Your task to perform on an android device: set default search engine in the chrome app Image 0: 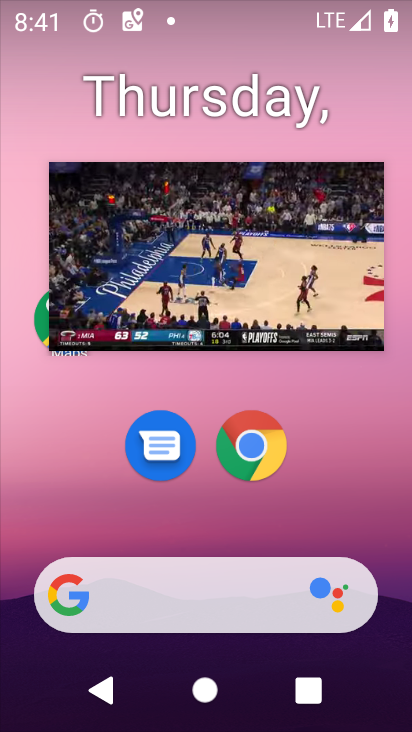
Step 0: click (343, 206)
Your task to perform on an android device: set default search engine in the chrome app Image 1: 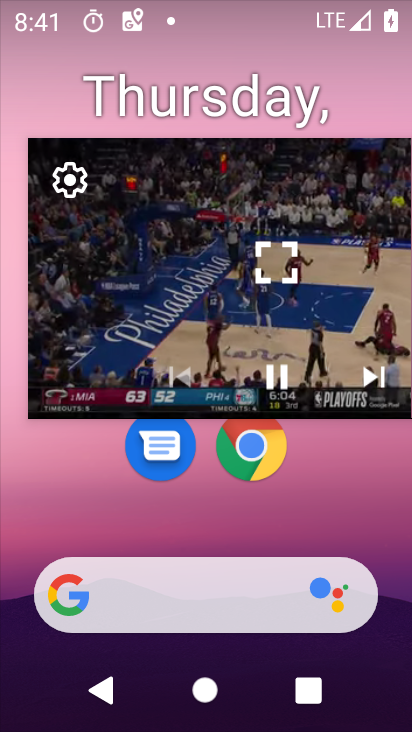
Step 1: drag from (378, 201) to (194, 731)
Your task to perform on an android device: set default search engine in the chrome app Image 2: 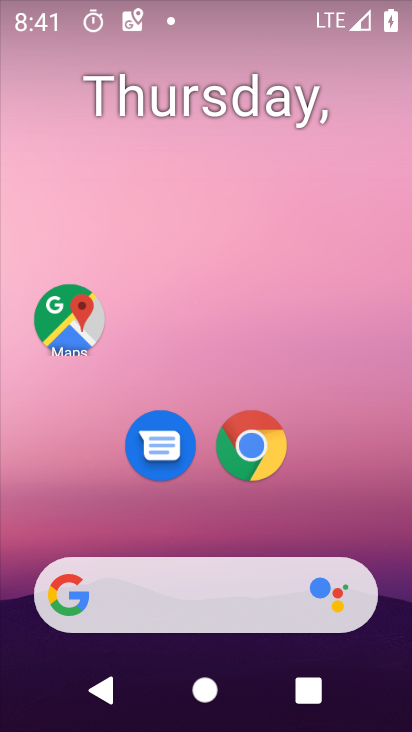
Step 2: drag from (214, 541) to (244, 223)
Your task to perform on an android device: set default search engine in the chrome app Image 3: 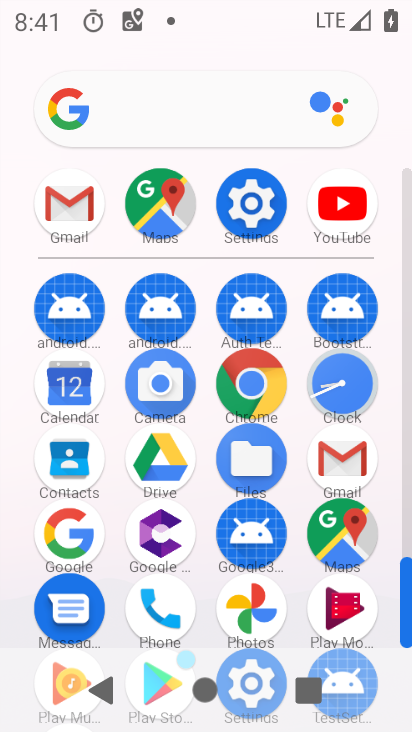
Step 3: click (247, 377)
Your task to perform on an android device: set default search engine in the chrome app Image 4: 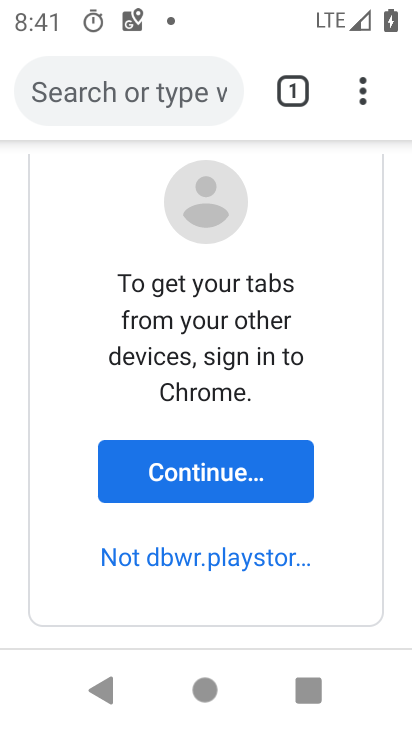
Step 4: drag from (372, 91) to (154, 463)
Your task to perform on an android device: set default search engine in the chrome app Image 5: 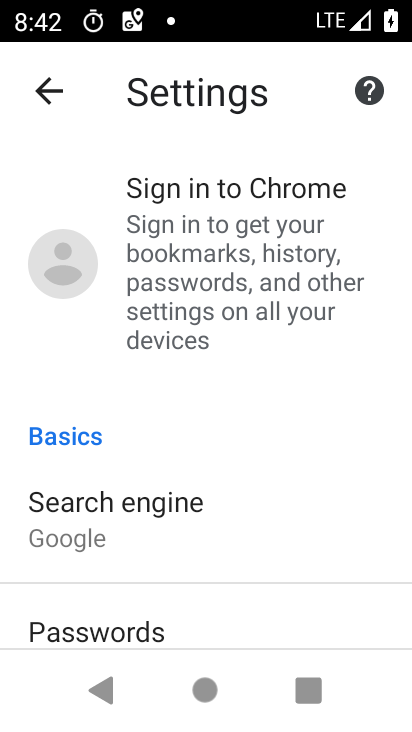
Step 5: drag from (244, 613) to (263, 104)
Your task to perform on an android device: set default search engine in the chrome app Image 6: 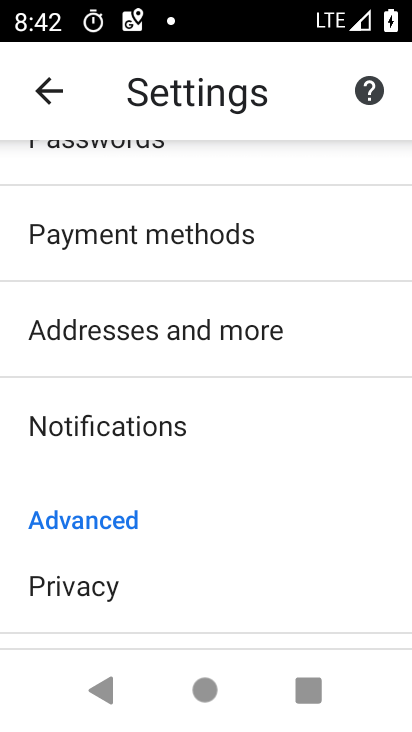
Step 6: drag from (260, 290) to (223, 684)
Your task to perform on an android device: set default search engine in the chrome app Image 7: 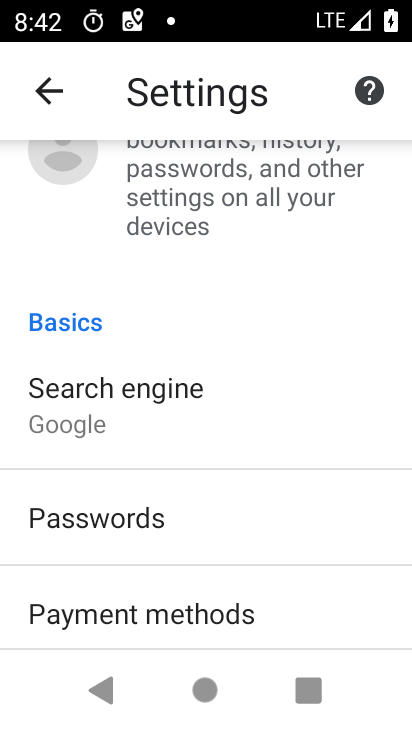
Step 7: click (165, 407)
Your task to perform on an android device: set default search engine in the chrome app Image 8: 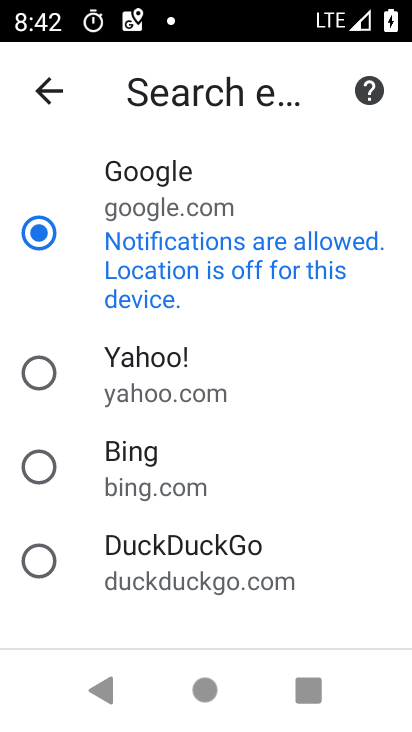
Step 8: click (224, 193)
Your task to perform on an android device: set default search engine in the chrome app Image 9: 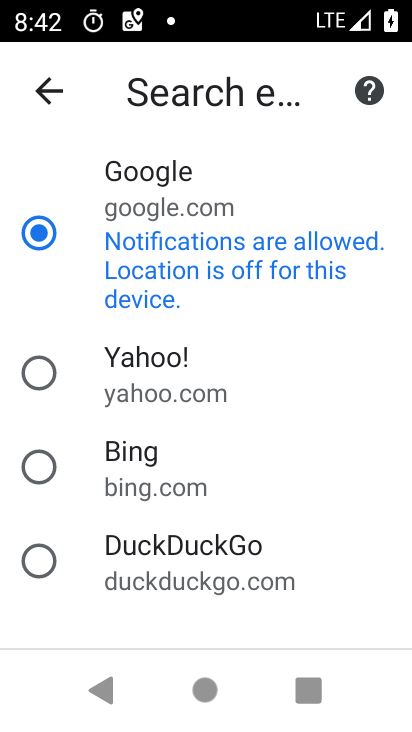
Step 9: click (134, 386)
Your task to perform on an android device: set default search engine in the chrome app Image 10: 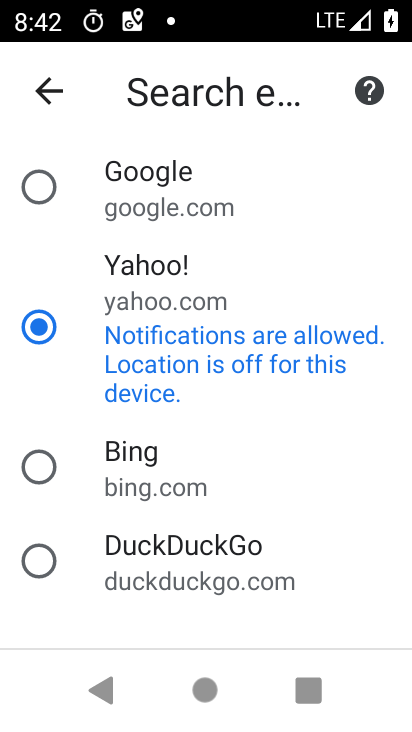
Step 10: task complete